Your task to perform on an android device: Go to Google Image 0: 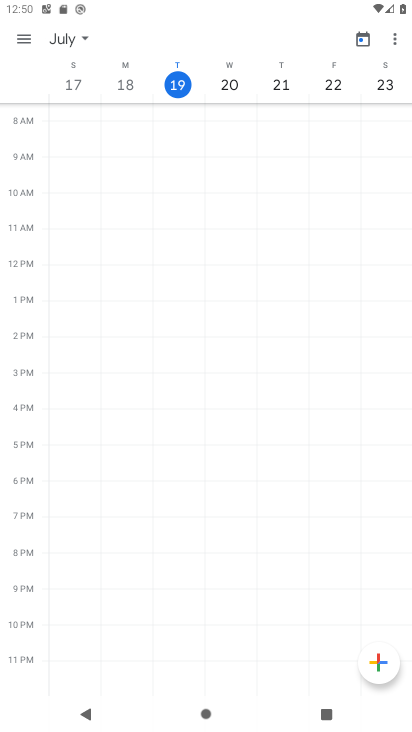
Step 0: press home button
Your task to perform on an android device: Go to Google Image 1: 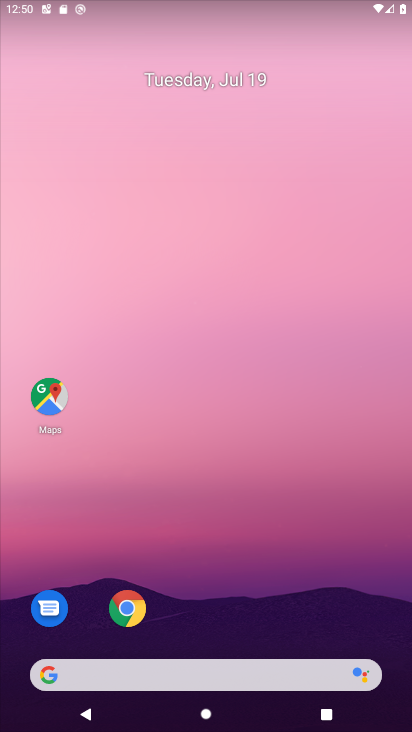
Step 1: drag from (222, 606) to (245, 89)
Your task to perform on an android device: Go to Google Image 2: 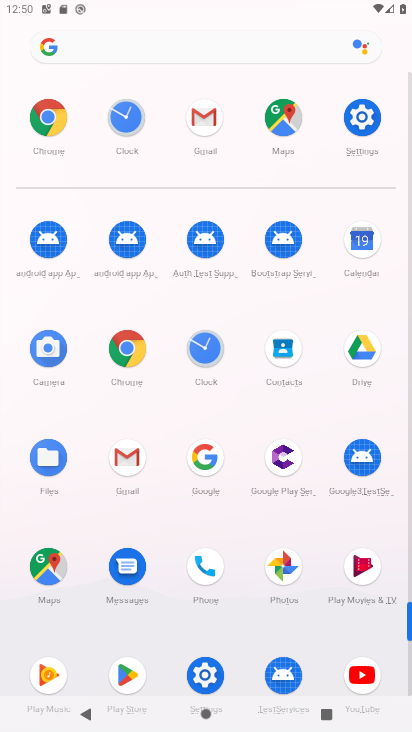
Step 2: click (55, 569)
Your task to perform on an android device: Go to Google Image 3: 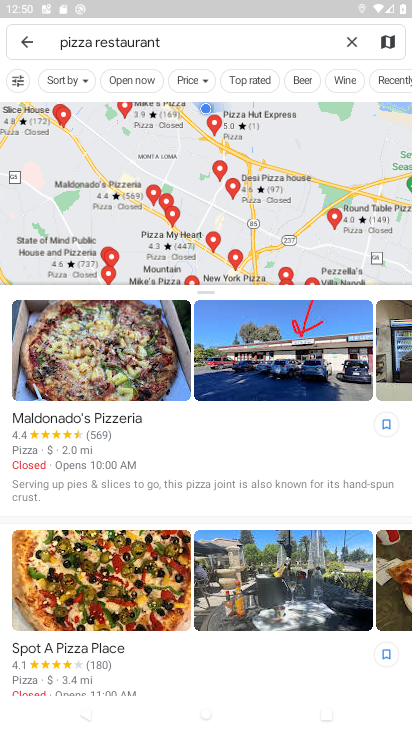
Step 3: task complete